Your task to perform on an android device: see tabs open on other devices in the chrome app Image 0: 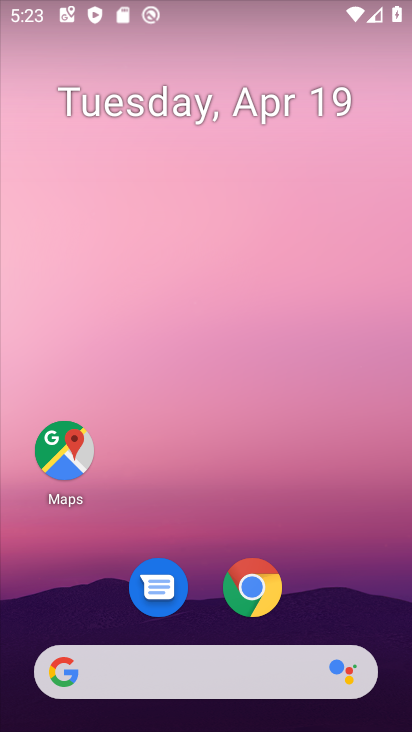
Step 0: click (251, 577)
Your task to perform on an android device: see tabs open on other devices in the chrome app Image 1: 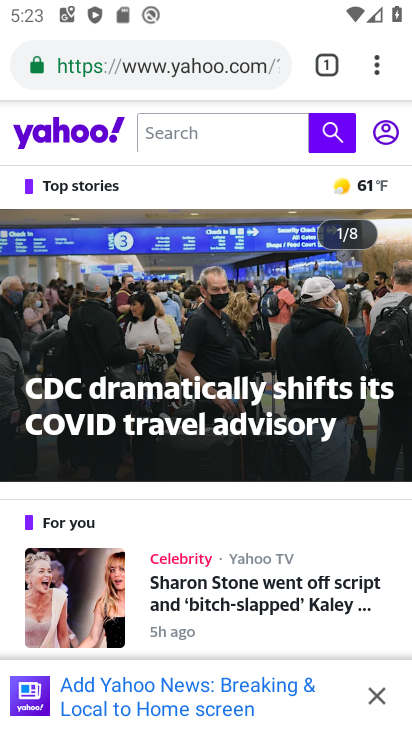
Step 1: click (366, 77)
Your task to perform on an android device: see tabs open on other devices in the chrome app Image 2: 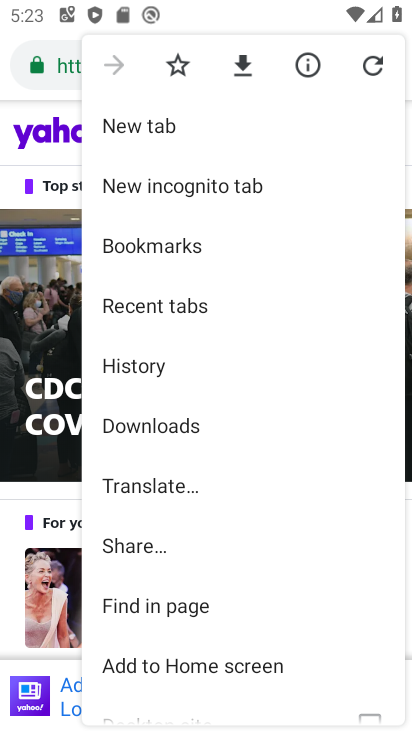
Step 2: click (210, 328)
Your task to perform on an android device: see tabs open on other devices in the chrome app Image 3: 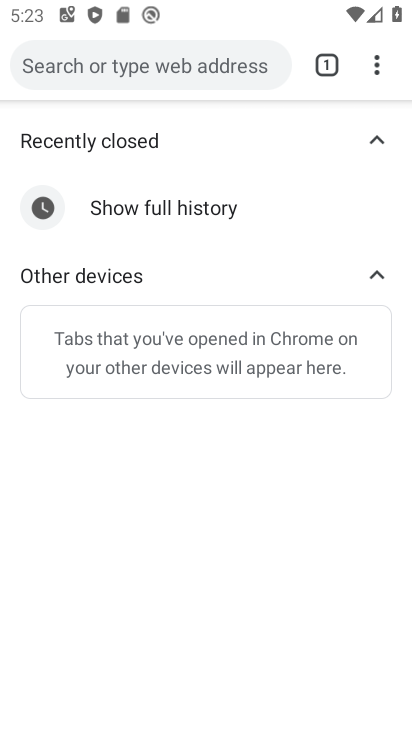
Step 3: task complete